Your task to perform on an android device: Check the weather Image 0: 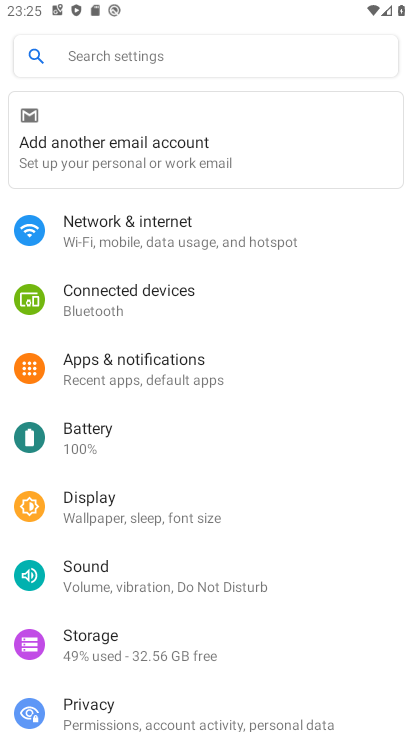
Step 0: press home button
Your task to perform on an android device: Check the weather Image 1: 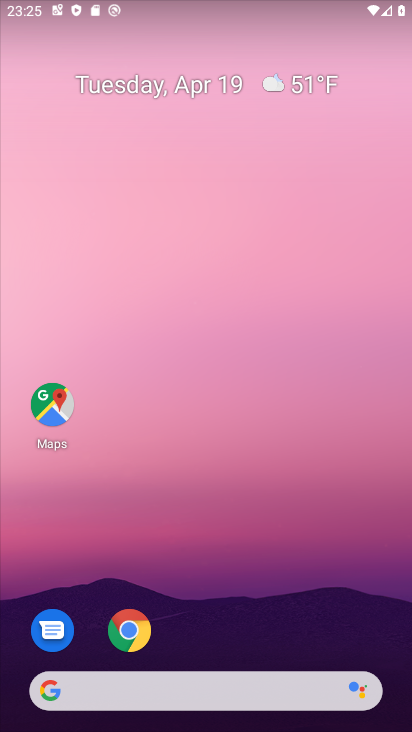
Step 1: drag from (250, 624) to (225, 325)
Your task to perform on an android device: Check the weather Image 2: 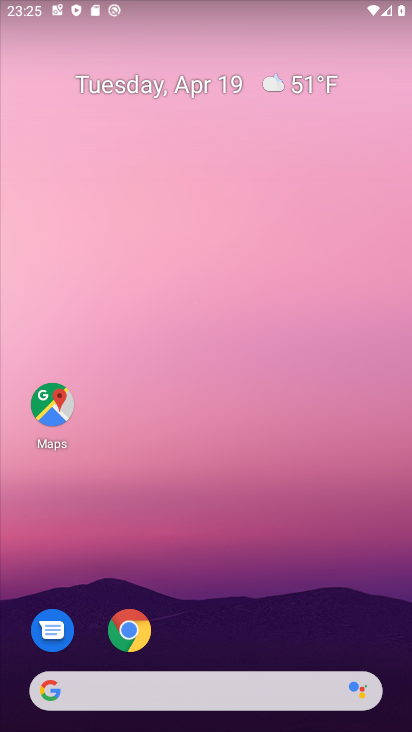
Step 2: drag from (280, 623) to (299, 15)
Your task to perform on an android device: Check the weather Image 3: 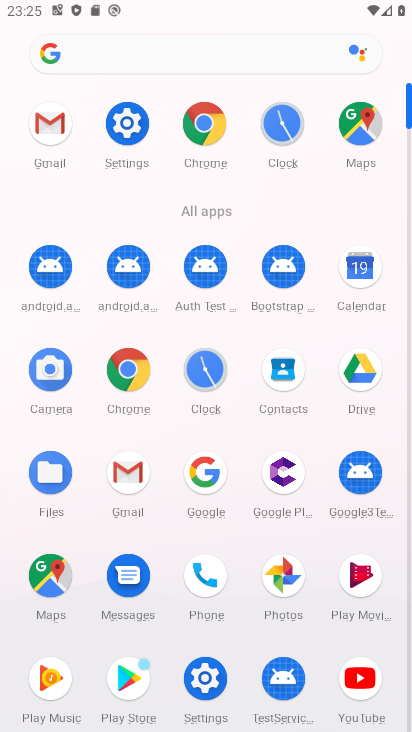
Step 3: click (134, 385)
Your task to perform on an android device: Check the weather Image 4: 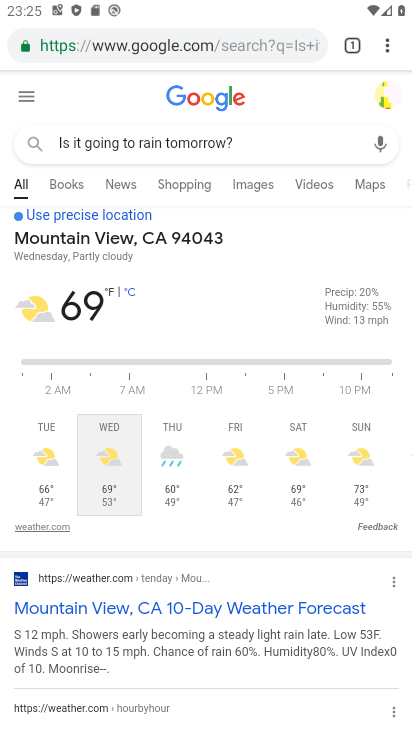
Step 4: click (247, 152)
Your task to perform on an android device: Check the weather Image 5: 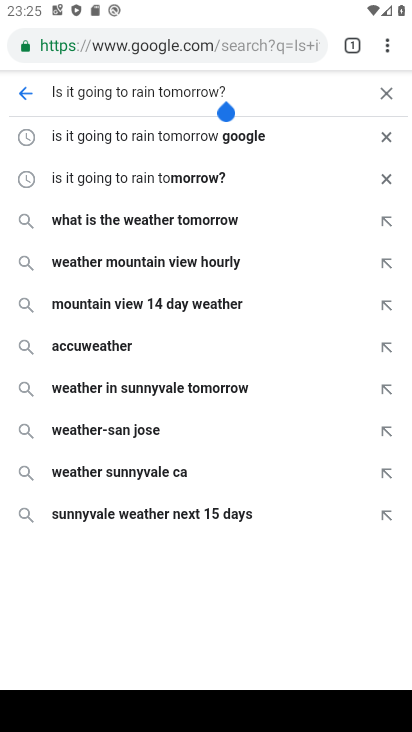
Step 5: click (384, 97)
Your task to perform on an android device: Check the weather Image 6: 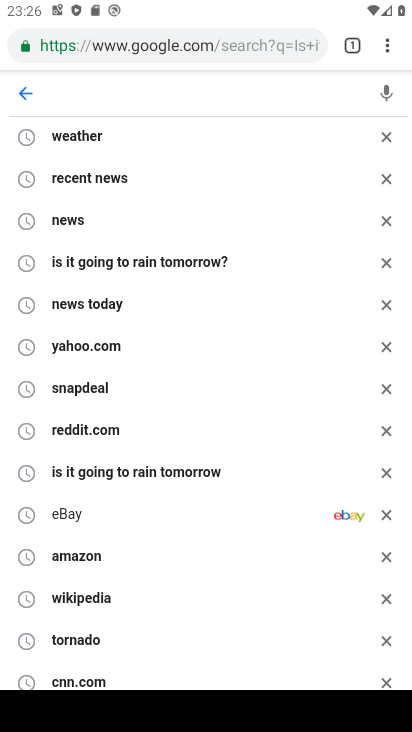
Step 6: click (83, 133)
Your task to perform on an android device: Check the weather Image 7: 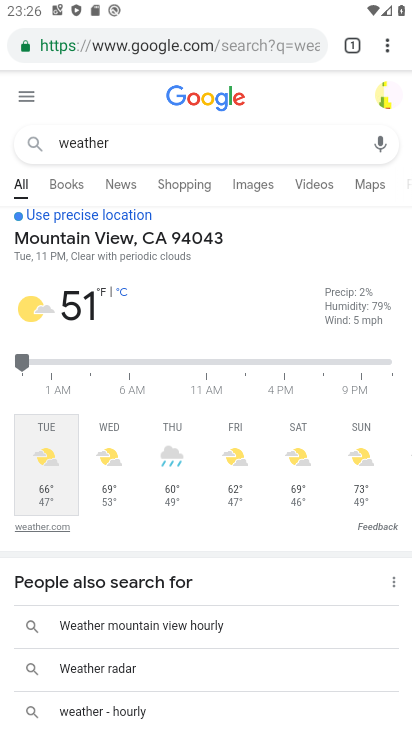
Step 7: task complete